Your task to perform on an android device: add a contact Image 0: 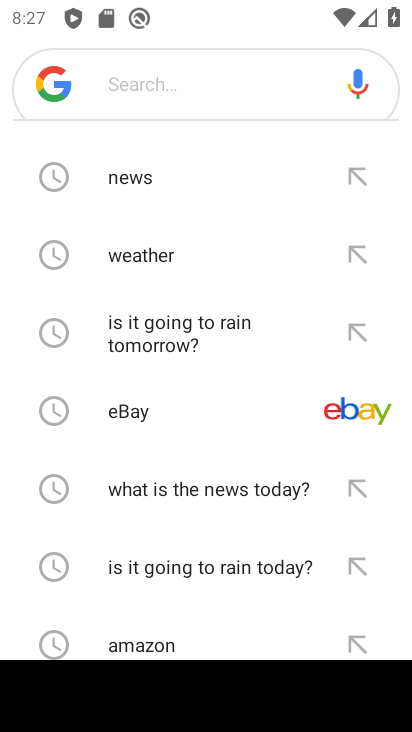
Step 0: press home button
Your task to perform on an android device: add a contact Image 1: 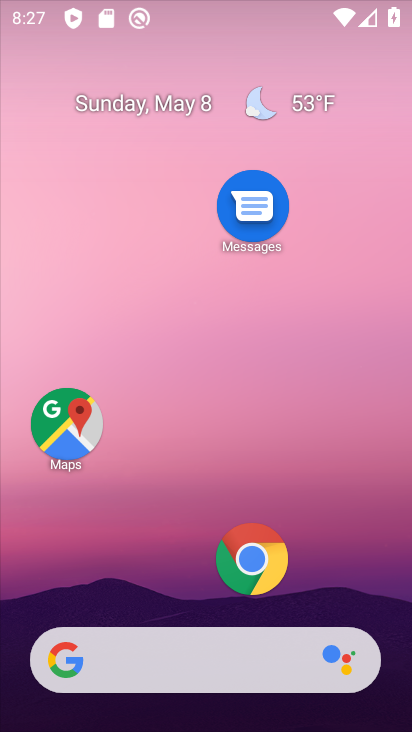
Step 1: drag from (152, 569) to (207, 20)
Your task to perform on an android device: add a contact Image 2: 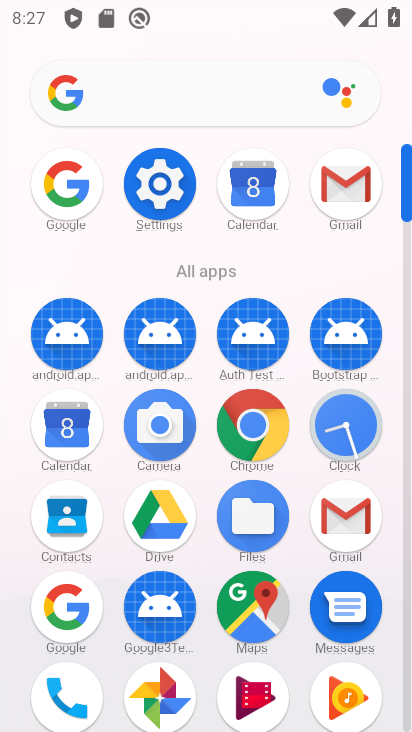
Step 2: click (55, 507)
Your task to perform on an android device: add a contact Image 3: 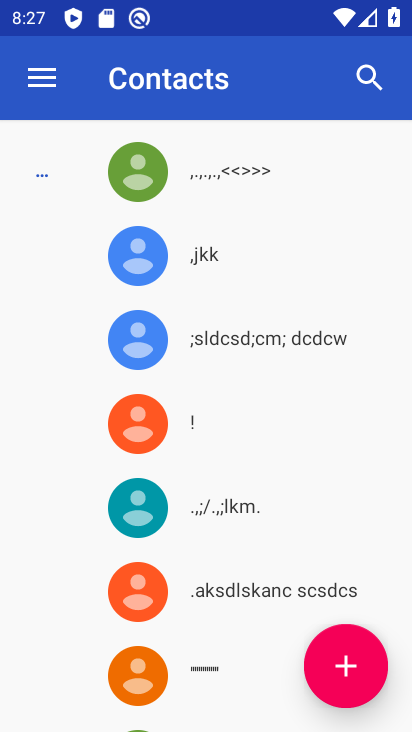
Step 3: click (344, 663)
Your task to perform on an android device: add a contact Image 4: 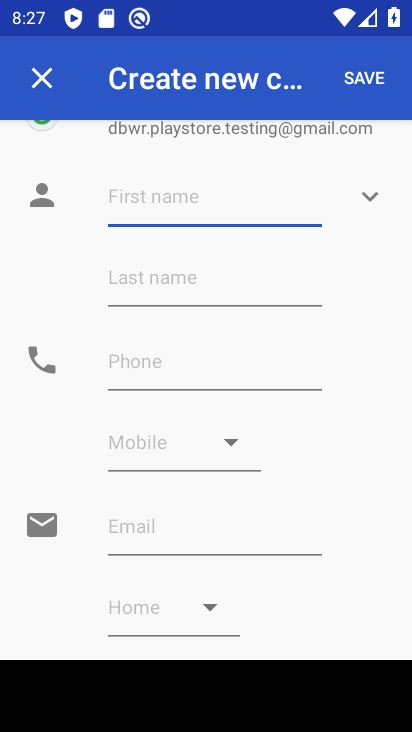
Step 4: type "hggh"
Your task to perform on an android device: add a contact Image 5: 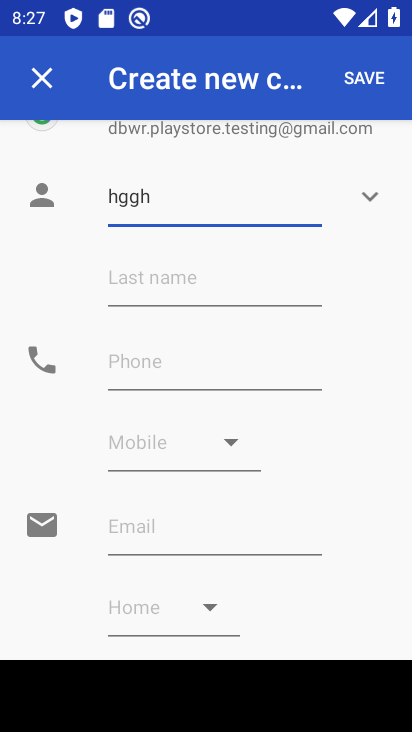
Step 5: click (362, 81)
Your task to perform on an android device: add a contact Image 6: 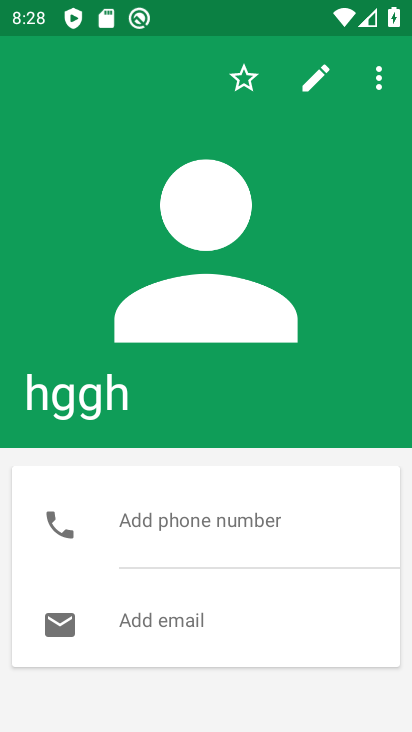
Step 6: task complete